Your task to perform on an android device: Open Google Maps Image 0: 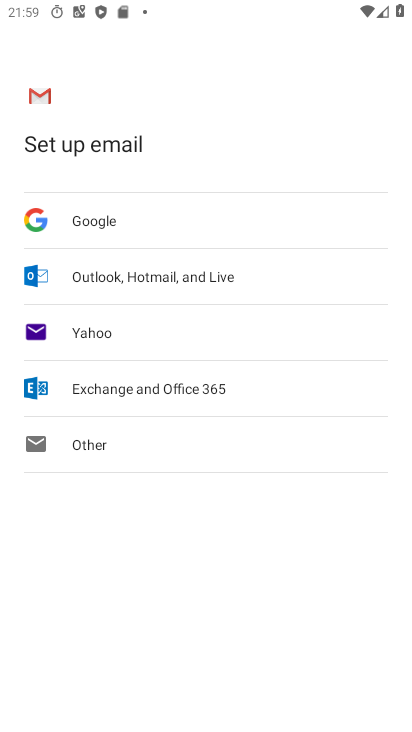
Step 0: press home button
Your task to perform on an android device: Open Google Maps Image 1: 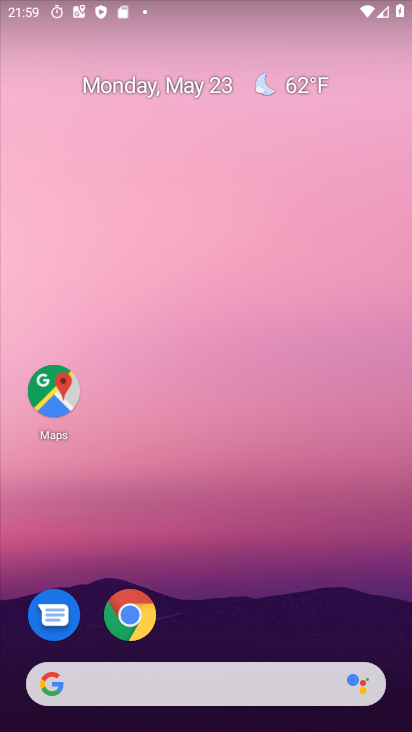
Step 1: click (52, 390)
Your task to perform on an android device: Open Google Maps Image 2: 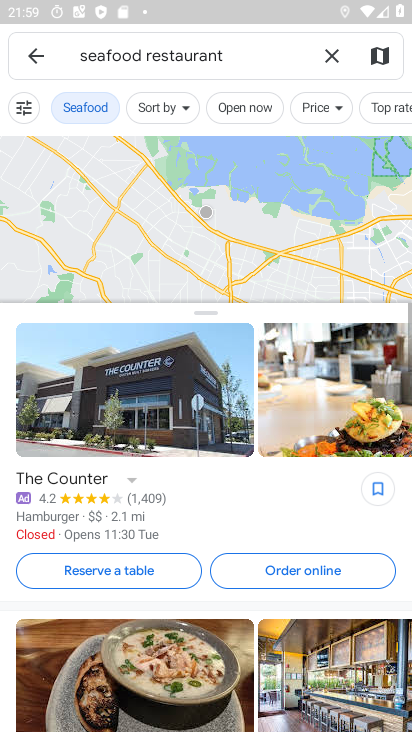
Step 2: task complete